Your task to perform on an android device: toggle improve location accuracy Image 0: 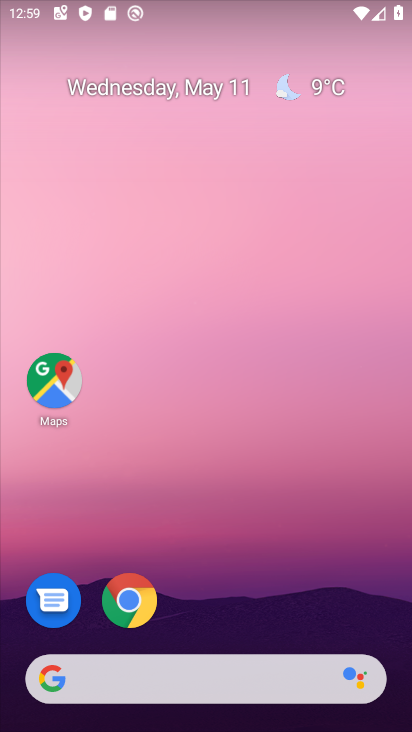
Step 0: drag from (236, 719) to (251, 43)
Your task to perform on an android device: toggle improve location accuracy Image 1: 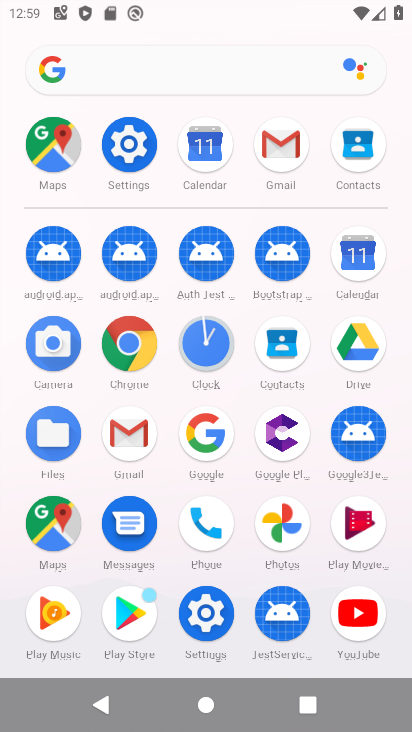
Step 1: click (134, 138)
Your task to perform on an android device: toggle improve location accuracy Image 2: 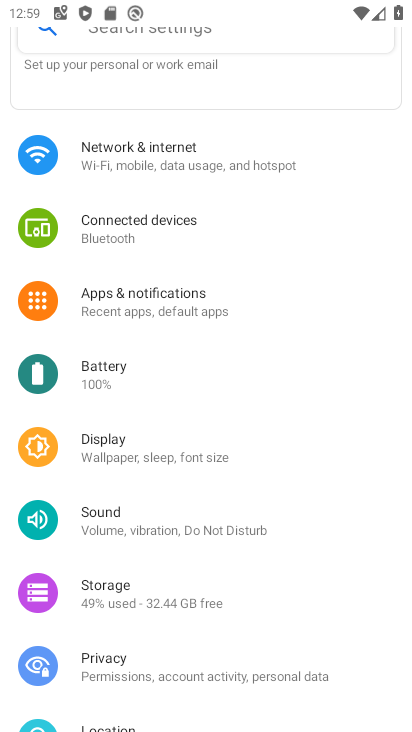
Step 2: drag from (283, 637) to (365, 101)
Your task to perform on an android device: toggle improve location accuracy Image 3: 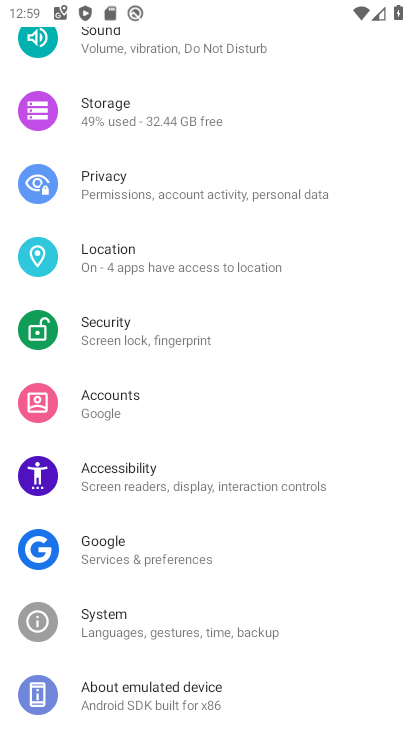
Step 3: click (159, 251)
Your task to perform on an android device: toggle improve location accuracy Image 4: 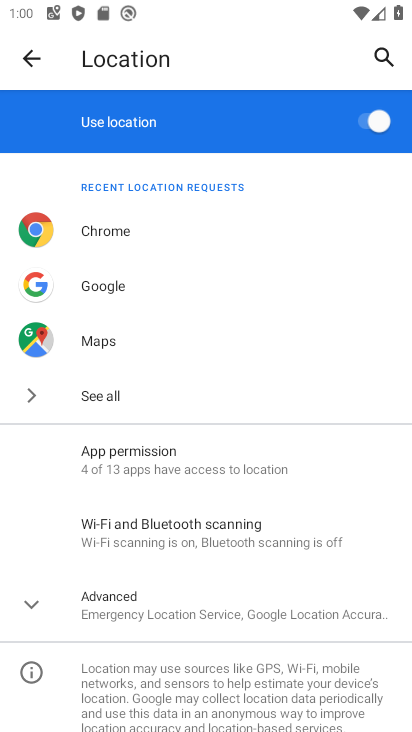
Step 4: click (295, 612)
Your task to perform on an android device: toggle improve location accuracy Image 5: 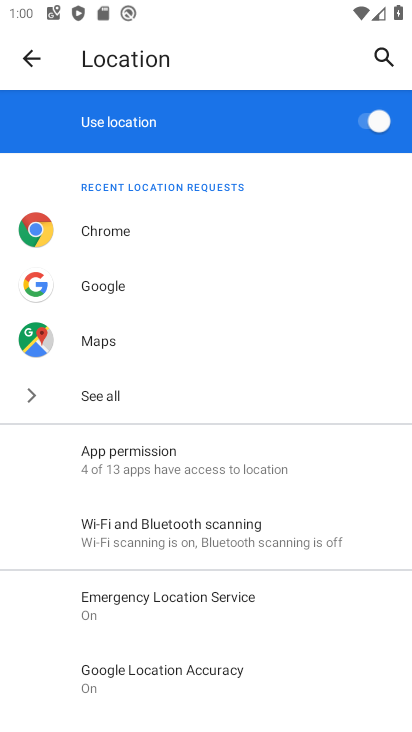
Step 5: click (224, 674)
Your task to perform on an android device: toggle improve location accuracy Image 6: 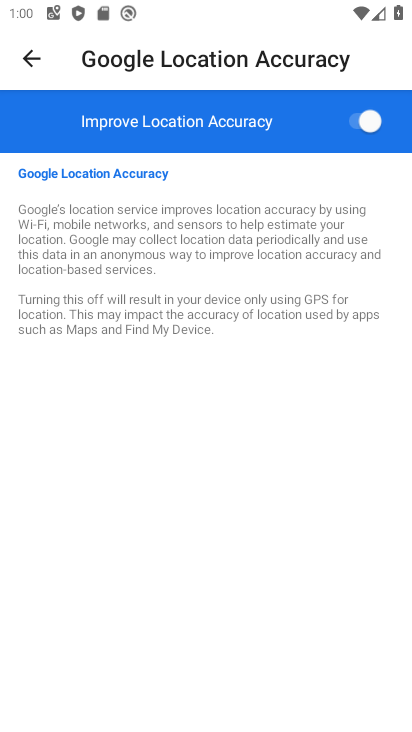
Step 6: click (367, 111)
Your task to perform on an android device: toggle improve location accuracy Image 7: 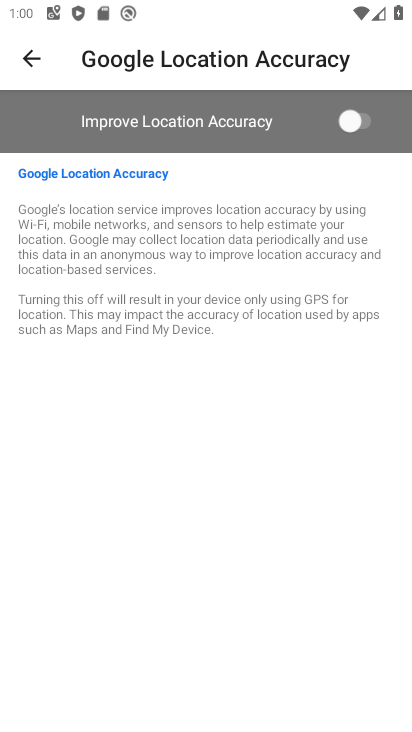
Step 7: task complete